Your task to perform on an android device: What's on my calendar today? Image 0: 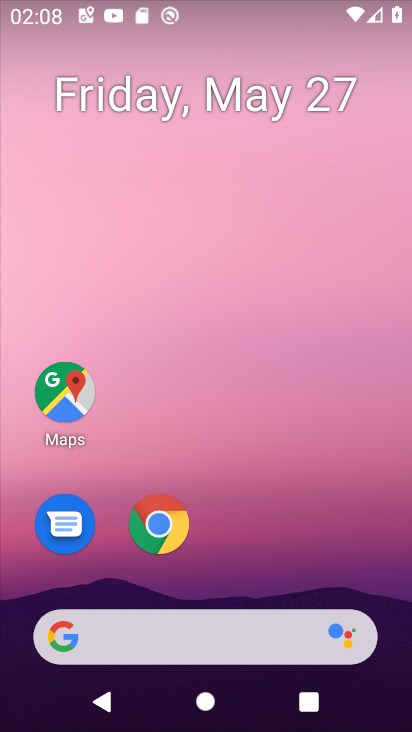
Step 0: drag from (264, 558) to (264, 0)
Your task to perform on an android device: What's on my calendar today? Image 1: 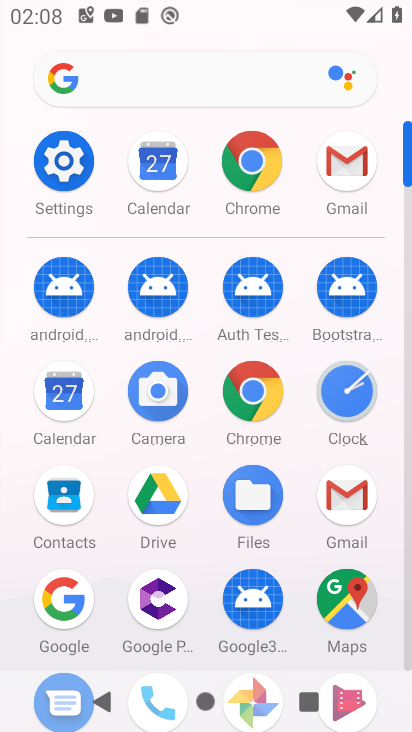
Step 1: click (156, 165)
Your task to perform on an android device: What's on my calendar today? Image 2: 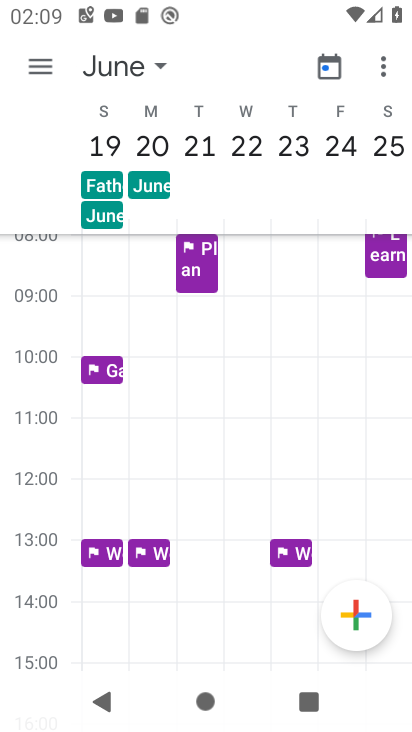
Step 2: drag from (107, 426) to (396, 456)
Your task to perform on an android device: What's on my calendar today? Image 3: 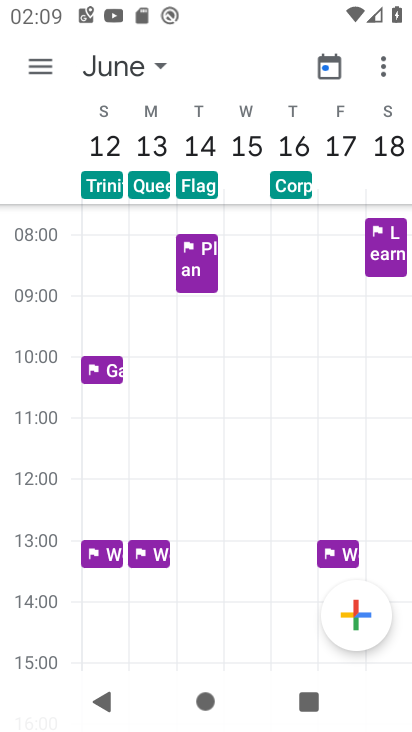
Step 3: drag from (98, 468) to (398, 462)
Your task to perform on an android device: What's on my calendar today? Image 4: 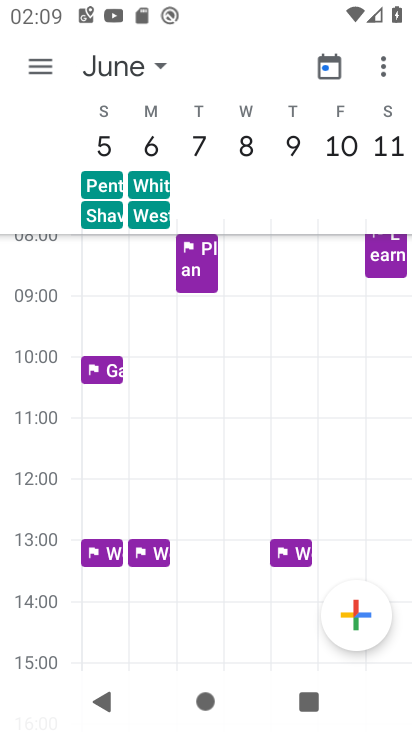
Step 4: drag from (98, 449) to (399, 463)
Your task to perform on an android device: What's on my calendar today? Image 5: 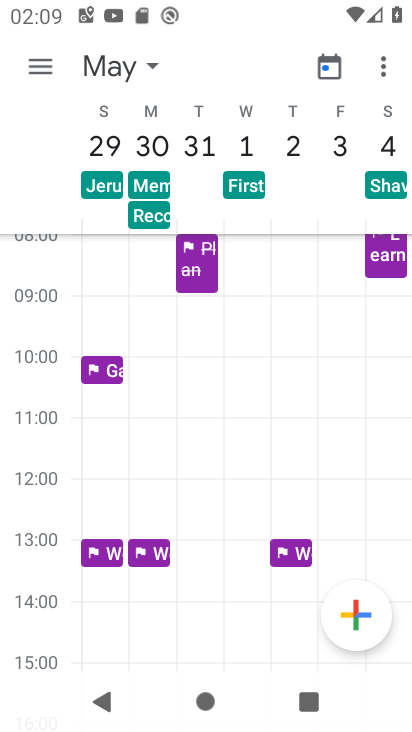
Step 5: drag from (105, 450) to (411, 446)
Your task to perform on an android device: What's on my calendar today? Image 6: 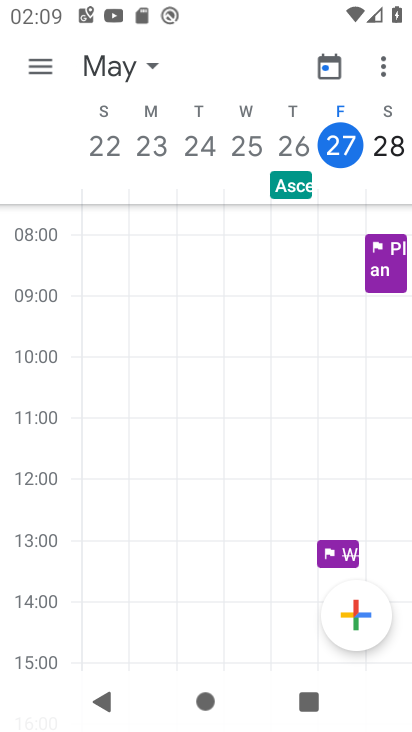
Step 6: click (338, 142)
Your task to perform on an android device: What's on my calendar today? Image 7: 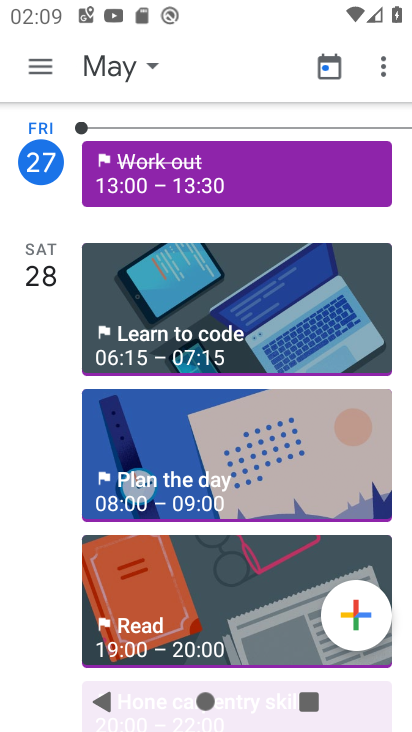
Step 7: task complete